Your task to perform on an android device: change keyboard looks Image 0: 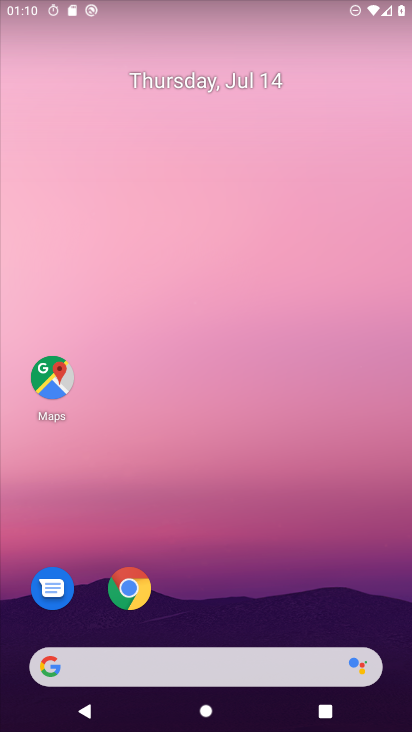
Step 0: drag from (190, 666) to (329, 161)
Your task to perform on an android device: change keyboard looks Image 1: 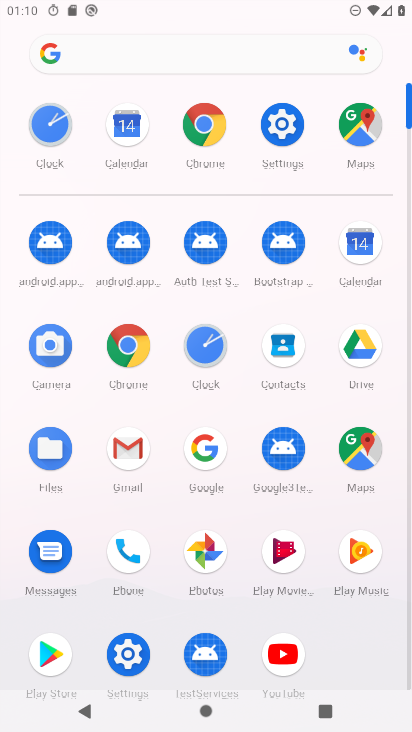
Step 1: click (281, 129)
Your task to perform on an android device: change keyboard looks Image 2: 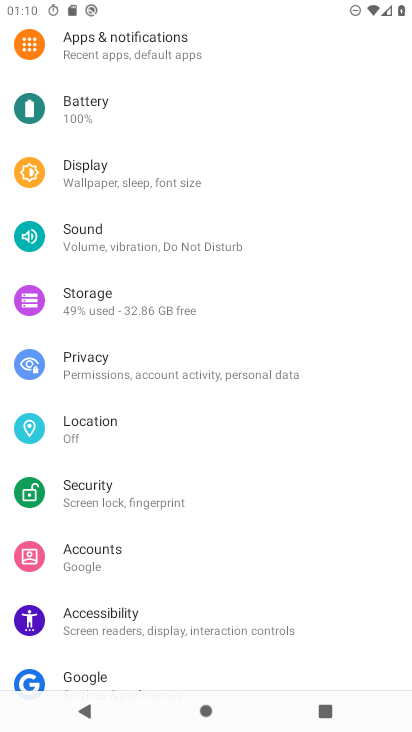
Step 2: drag from (226, 606) to (371, 210)
Your task to perform on an android device: change keyboard looks Image 3: 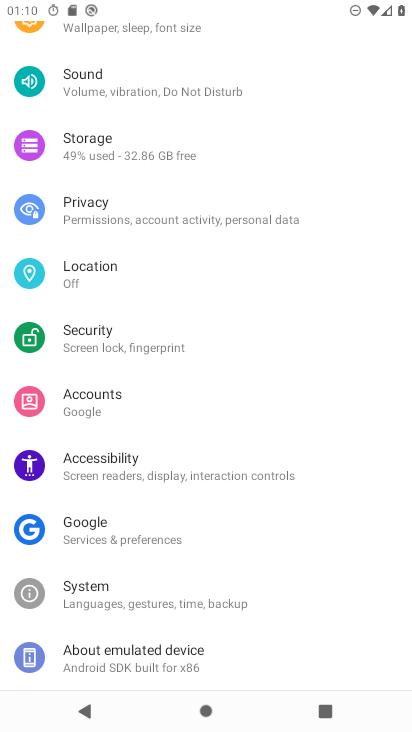
Step 3: click (148, 605)
Your task to perform on an android device: change keyboard looks Image 4: 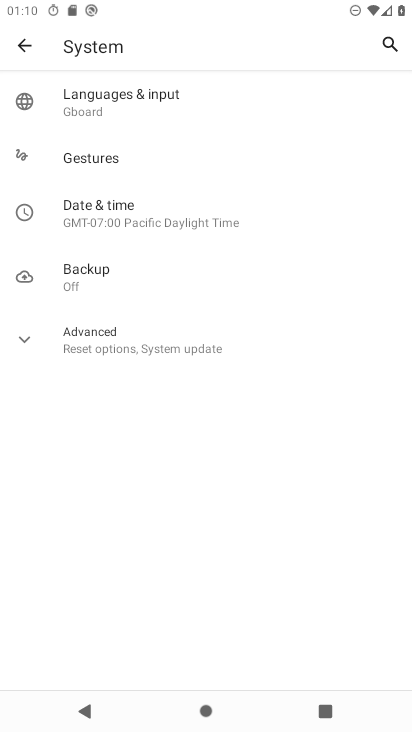
Step 4: click (126, 103)
Your task to perform on an android device: change keyboard looks Image 5: 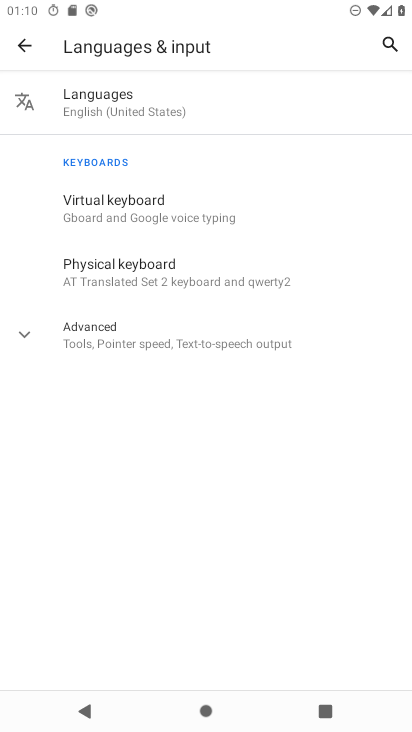
Step 5: click (152, 202)
Your task to perform on an android device: change keyboard looks Image 6: 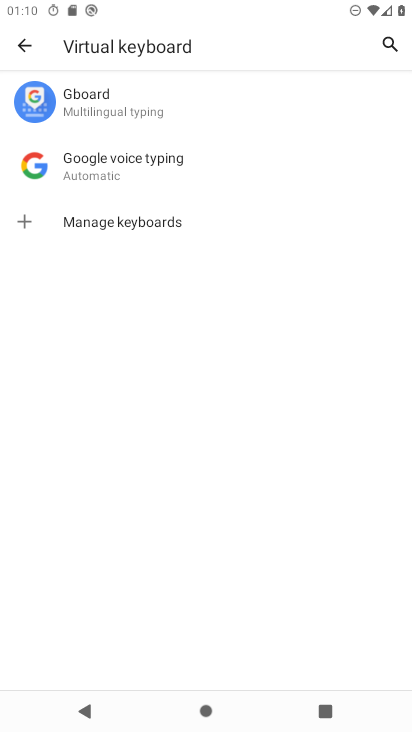
Step 6: click (126, 107)
Your task to perform on an android device: change keyboard looks Image 7: 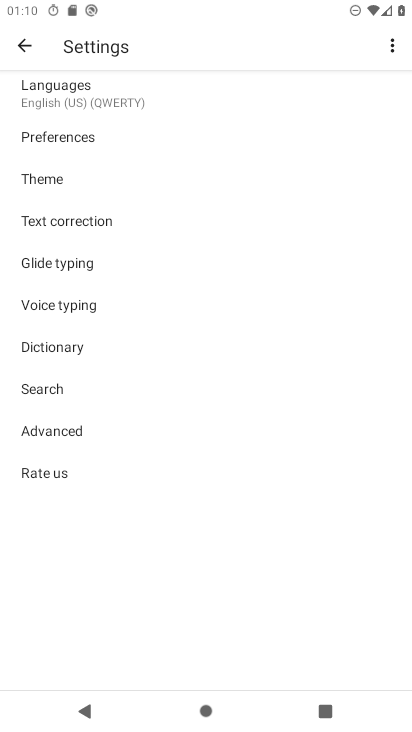
Step 7: click (53, 181)
Your task to perform on an android device: change keyboard looks Image 8: 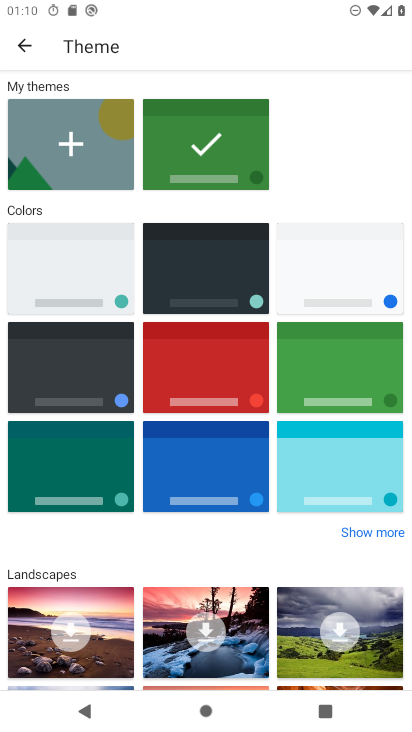
Step 8: click (186, 462)
Your task to perform on an android device: change keyboard looks Image 9: 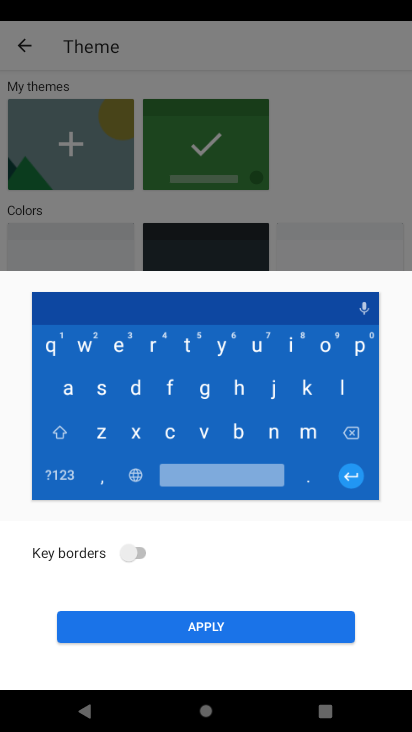
Step 9: click (222, 628)
Your task to perform on an android device: change keyboard looks Image 10: 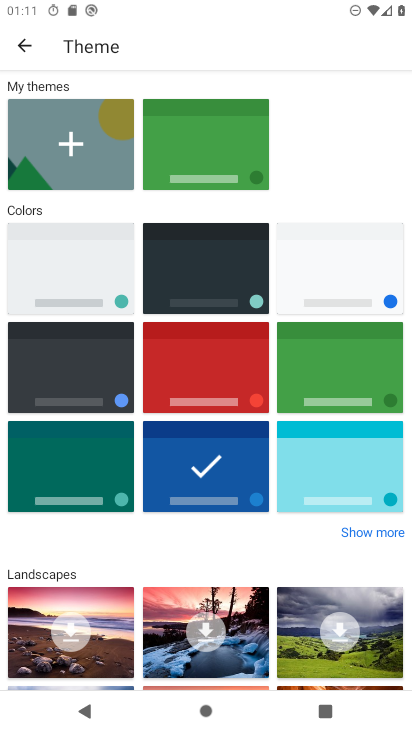
Step 10: task complete